Your task to perform on an android device: Set the phone to "Do not disturb". Image 0: 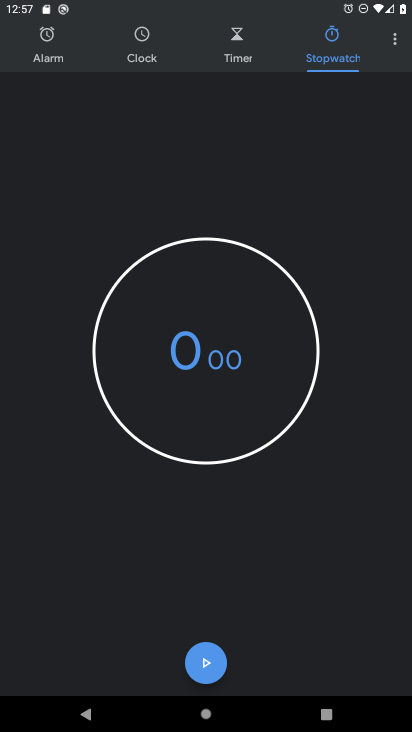
Step 0: press home button
Your task to perform on an android device: Set the phone to "Do not disturb". Image 1: 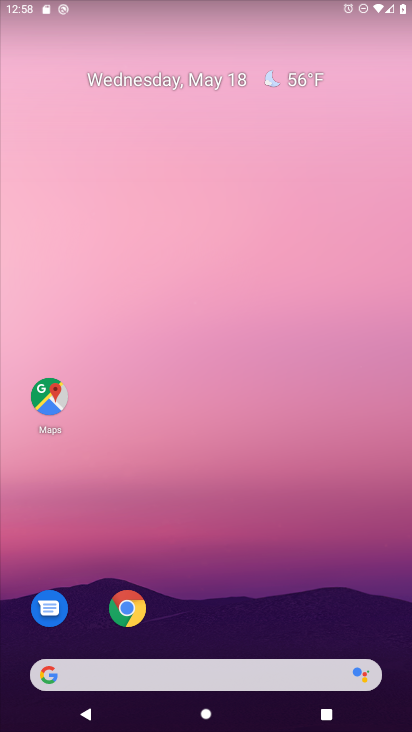
Step 1: drag from (259, 705) to (325, 200)
Your task to perform on an android device: Set the phone to "Do not disturb". Image 2: 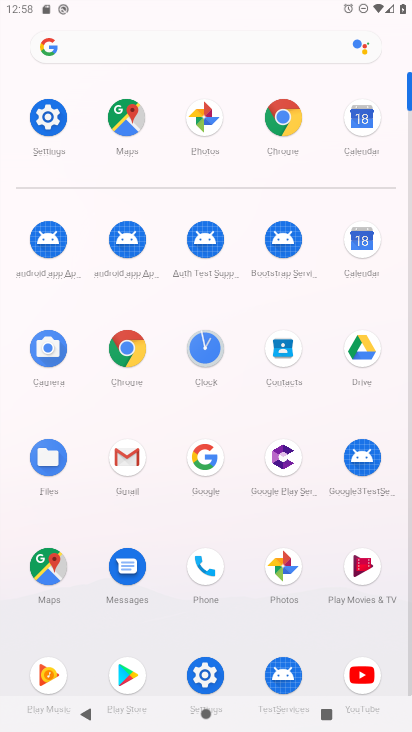
Step 2: click (195, 657)
Your task to perform on an android device: Set the phone to "Do not disturb". Image 3: 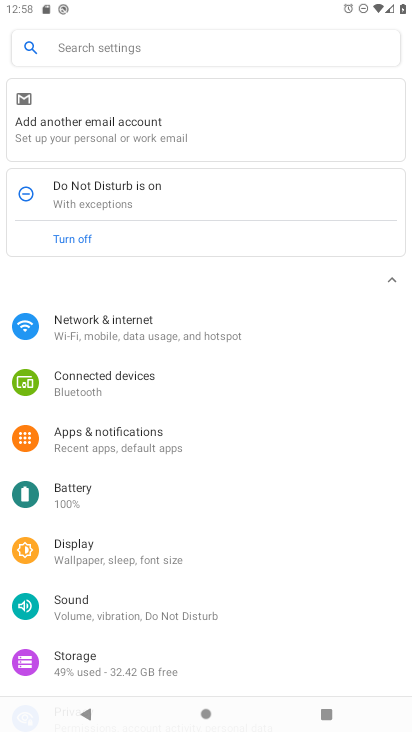
Step 3: click (126, 49)
Your task to perform on an android device: Set the phone to "Do not disturb". Image 4: 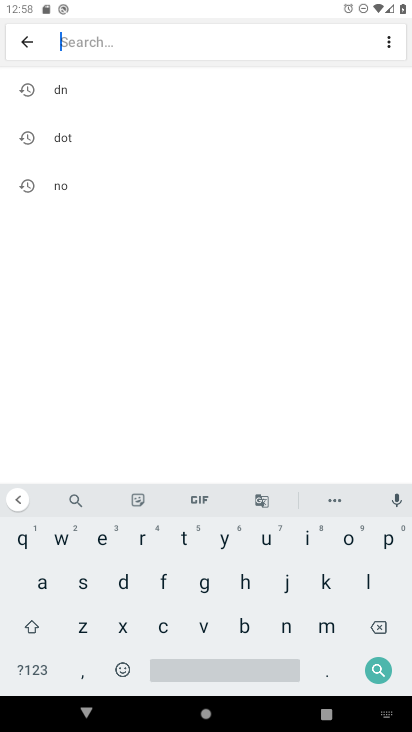
Step 4: click (125, 584)
Your task to perform on an android device: Set the phone to "Do not disturb". Image 5: 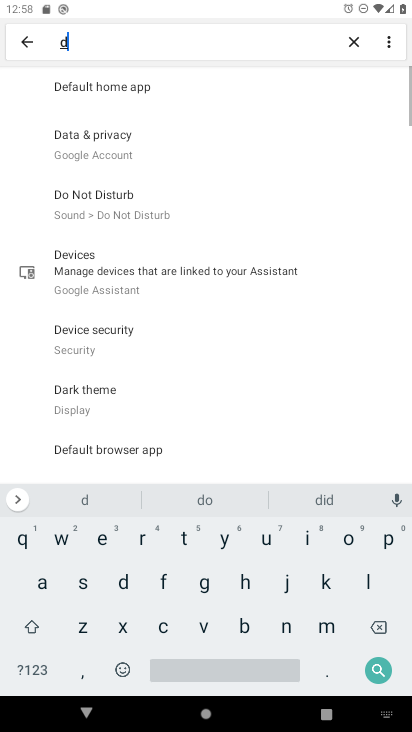
Step 5: click (286, 626)
Your task to perform on an android device: Set the phone to "Do not disturb". Image 6: 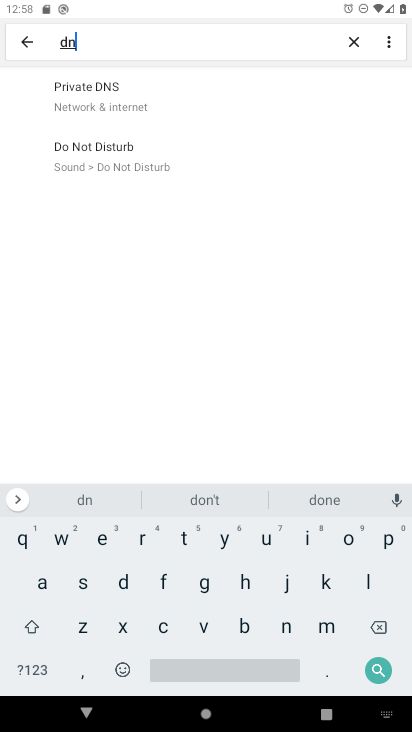
Step 6: click (123, 578)
Your task to perform on an android device: Set the phone to "Do not disturb". Image 7: 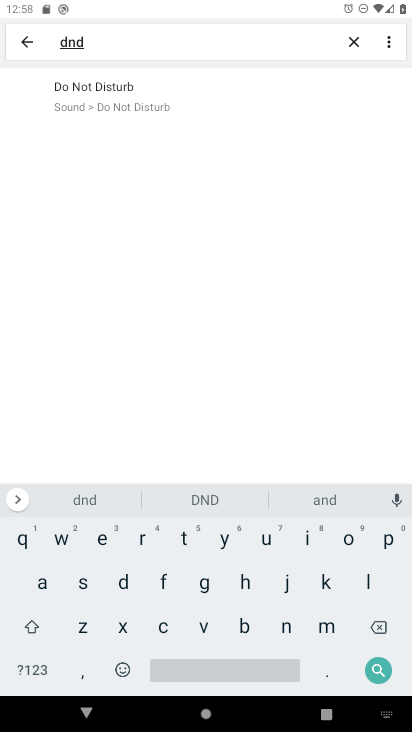
Step 7: click (180, 91)
Your task to perform on an android device: Set the phone to "Do not disturb". Image 8: 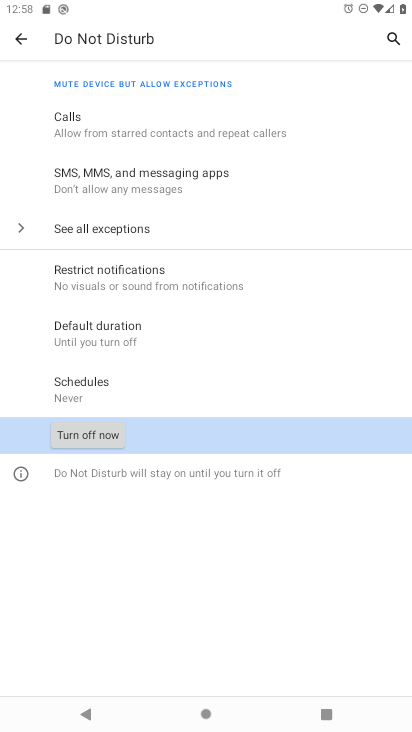
Step 8: click (86, 443)
Your task to perform on an android device: Set the phone to "Do not disturb". Image 9: 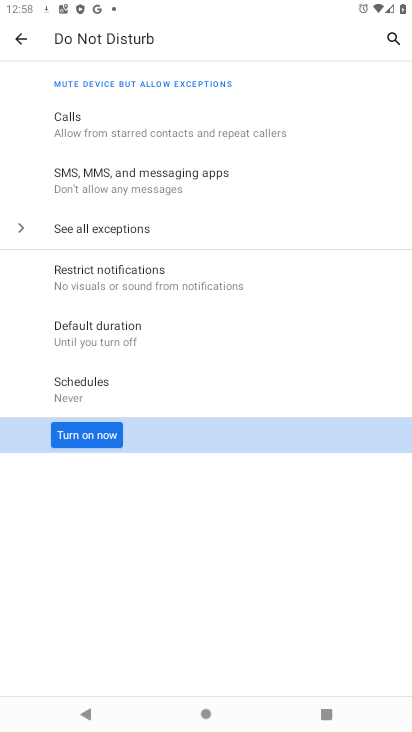
Step 9: task complete